Your task to perform on an android device: Empty the shopping cart on newegg. Add "logitech g910" to the cart on newegg Image 0: 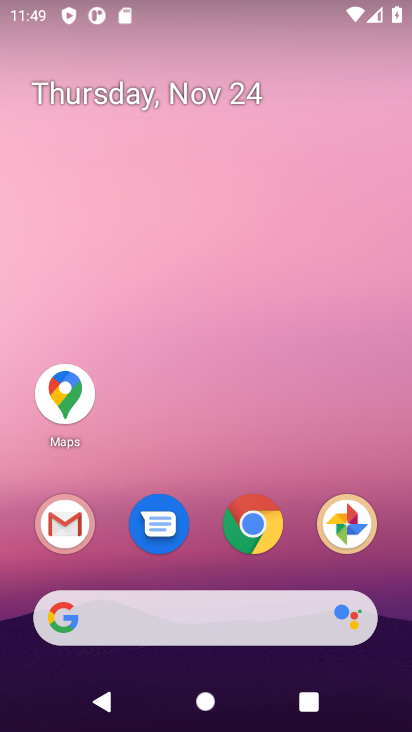
Step 0: click (262, 530)
Your task to perform on an android device: Empty the shopping cart on newegg. Add "logitech g910" to the cart on newegg Image 1: 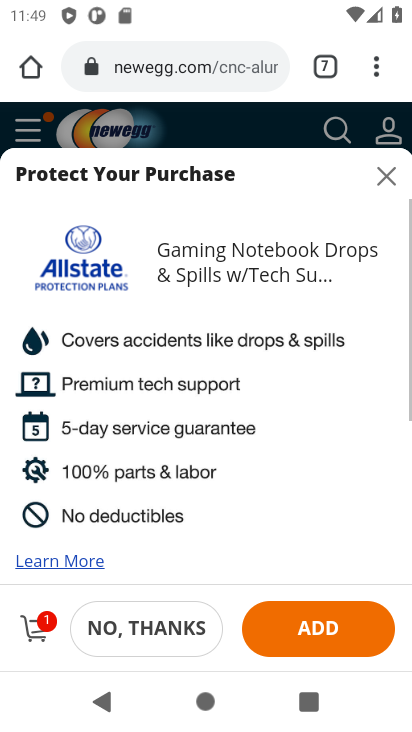
Step 1: click (384, 177)
Your task to perform on an android device: Empty the shopping cart on newegg. Add "logitech g910" to the cart on newegg Image 2: 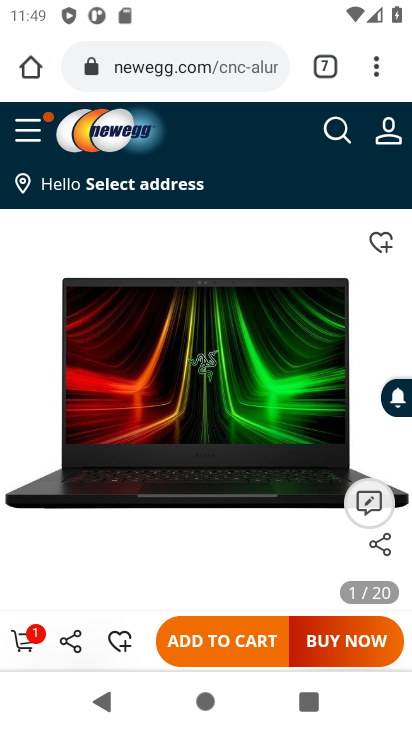
Step 2: click (23, 639)
Your task to perform on an android device: Empty the shopping cart on newegg. Add "logitech g910" to the cart on newegg Image 3: 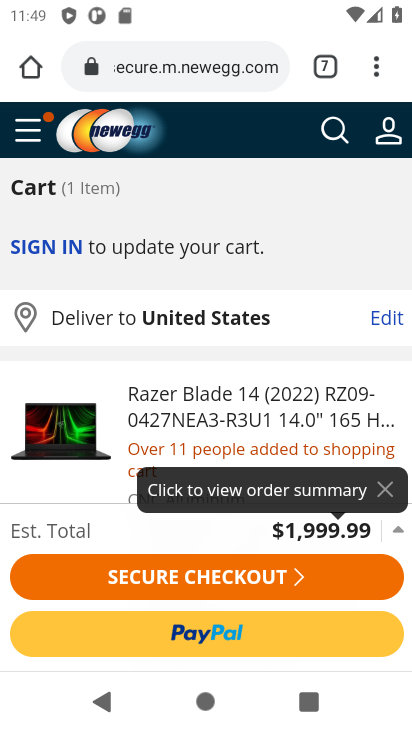
Step 3: drag from (206, 464) to (231, 242)
Your task to perform on an android device: Empty the shopping cart on newegg. Add "logitech g910" to the cart on newegg Image 4: 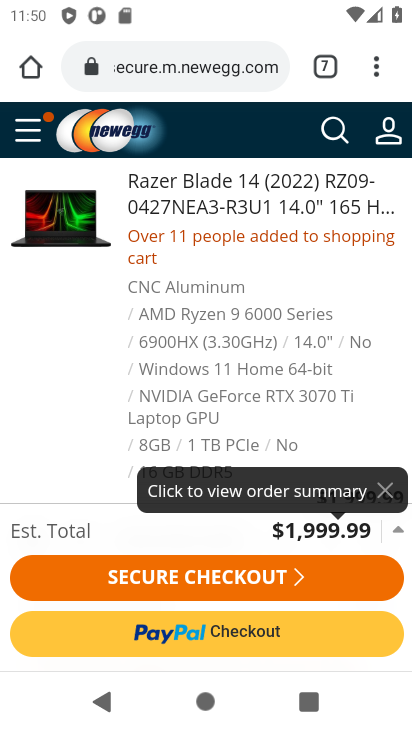
Step 4: drag from (198, 352) to (206, 232)
Your task to perform on an android device: Empty the shopping cart on newegg. Add "logitech g910" to the cart on newegg Image 5: 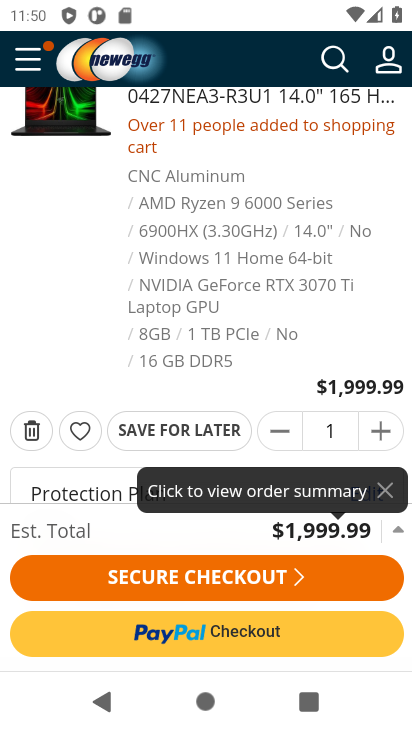
Step 5: click (31, 433)
Your task to perform on an android device: Empty the shopping cart on newegg. Add "logitech g910" to the cart on newegg Image 6: 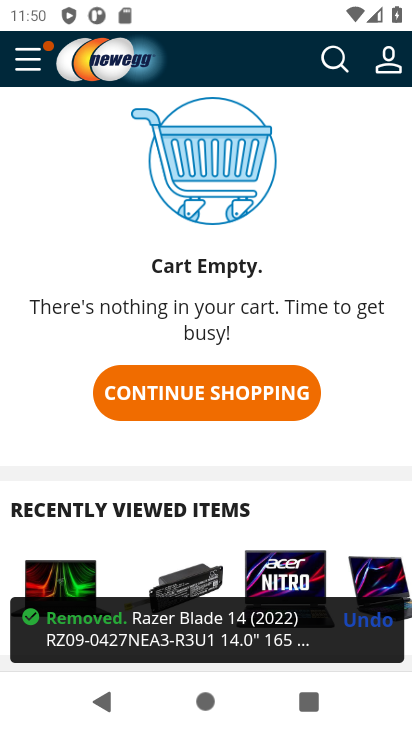
Step 6: click (168, 402)
Your task to perform on an android device: Empty the shopping cart on newegg. Add "logitech g910" to the cart on newegg Image 7: 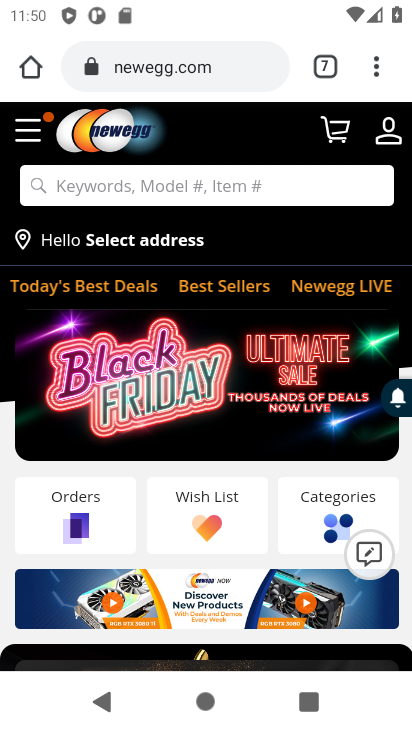
Step 7: click (103, 189)
Your task to perform on an android device: Empty the shopping cart on newegg. Add "logitech g910" to the cart on newegg Image 8: 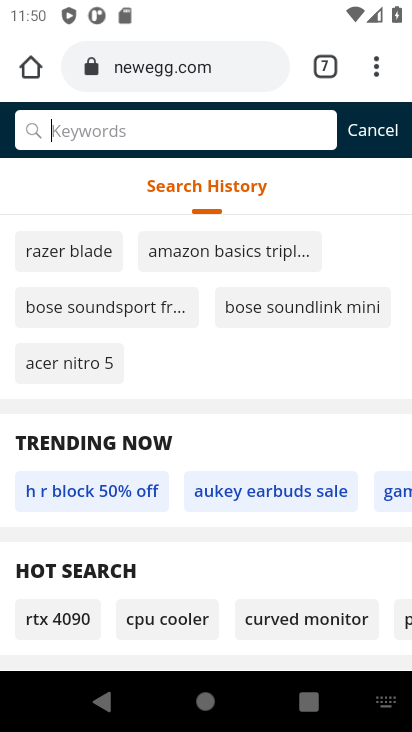
Step 8: type "logitech g910"
Your task to perform on an android device: Empty the shopping cart on newegg. Add "logitech g910" to the cart on newegg Image 9: 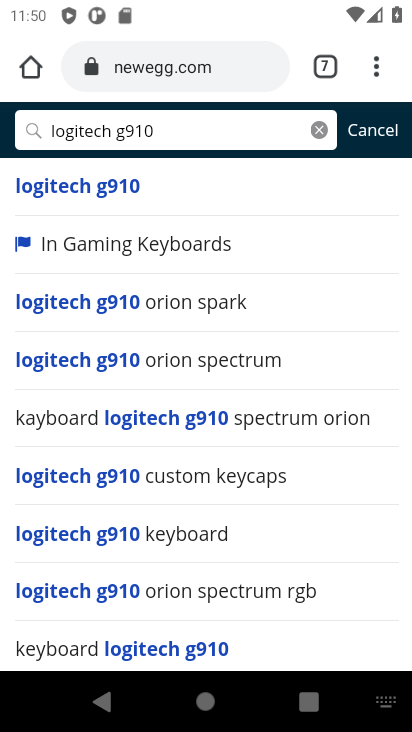
Step 9: click (81, 192)
Your task to perform on an android device: Empty the shopping cart on newegg. Add "logitech g910" to the cart on newegg Image 10: 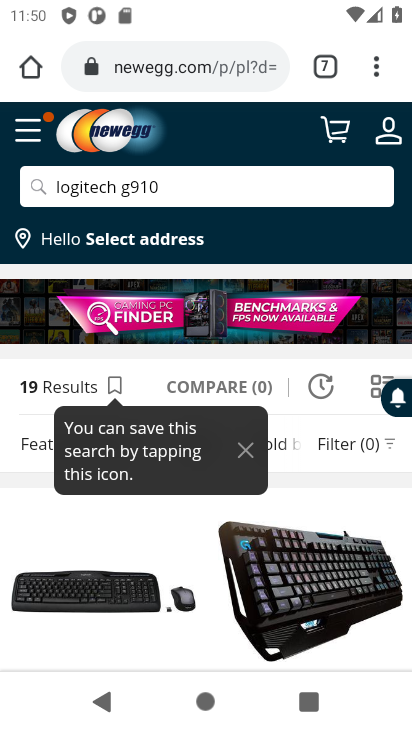
Step 10: drag from (165, 481) to (169, 318)
Your task to perform on an android device: Empty the shopping cart on newegg. Add "logitech g910" to the cart on newegg Image 11: 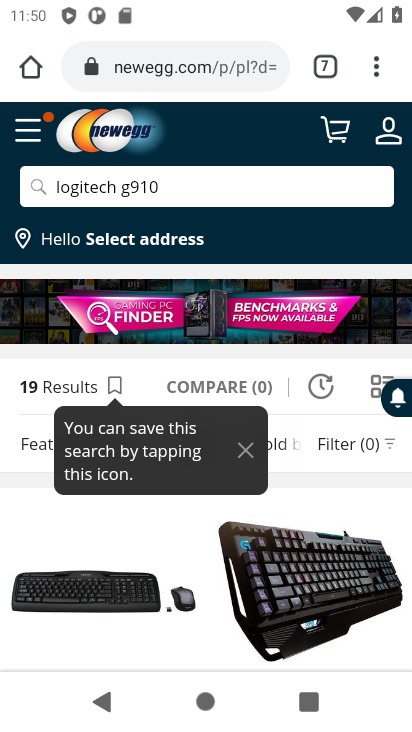
Step 11: drag from (242, 520) to (243, 275)
Your task to perform on an android device: Empty the shopping cart on newegg. Add "logitech g910" to the cart on newegg Image 12: 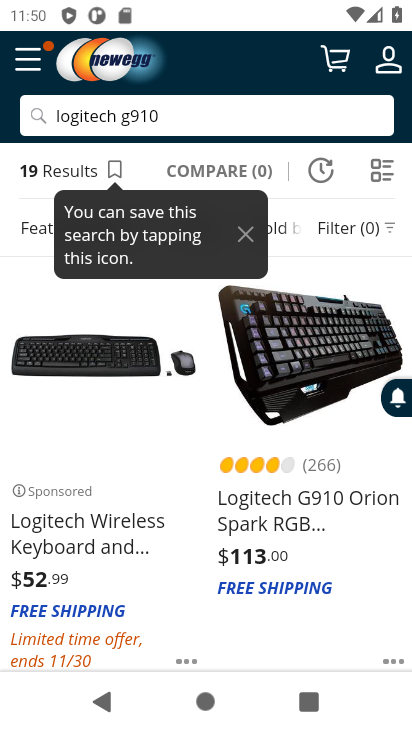
Step 12: drag from (136, 466) to (137, 364)
Your task to perform on an android device: Empty the shopping cart on newegg. Add "logitech g910" to the cart on newegg Image 13: 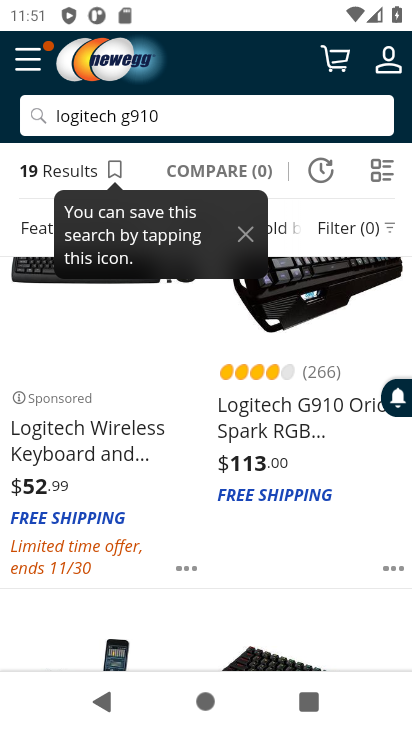
Step 13: click (305, 349)
Your task to perform on an android device: Empty the shopping cart on newegg. Add "logitech g910" to the cart on newegg Image 14: 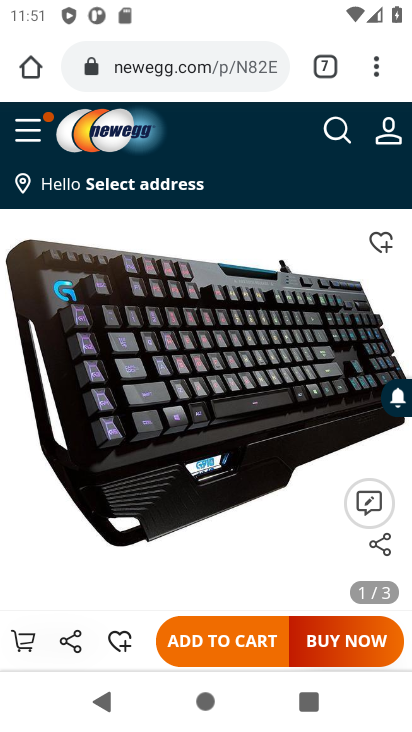
Step 14: click (222, 647)
Your task to perform on an android device: Empty the shopping cart on newegg. Add "logitech g910" to the cart on newegg Image 15: 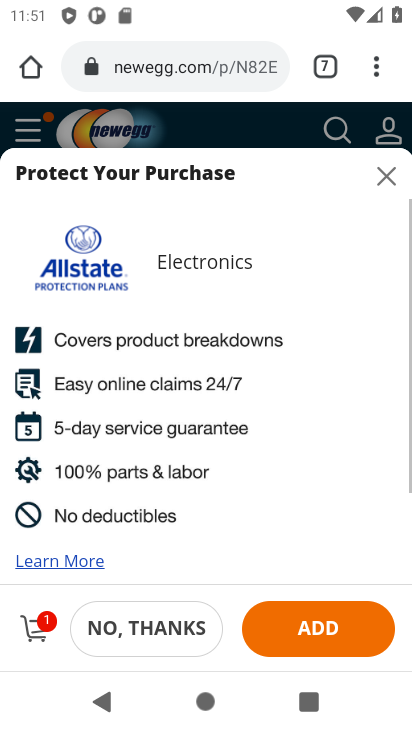
Step 15: task complete